Your task to perform on an android device: Clear the shopping cart on newegg.com. Search for bose soundlink mini on newegg.com, select the first entry, add it to the cart, then select checkout. Image 0: 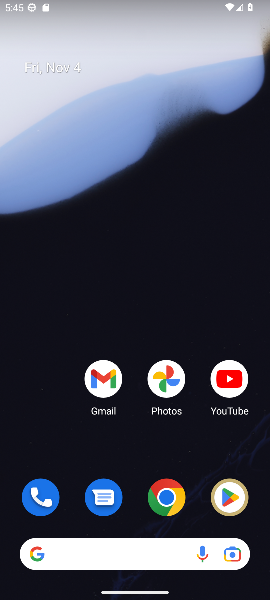
Step 0: click (171, 497)
Your task to perform on an android device: Clear the shopping cart on newegg.com. Search for bose soundlink mini on newegg.com, select the first entry, add it to the cart, then select checkout. Image 1: 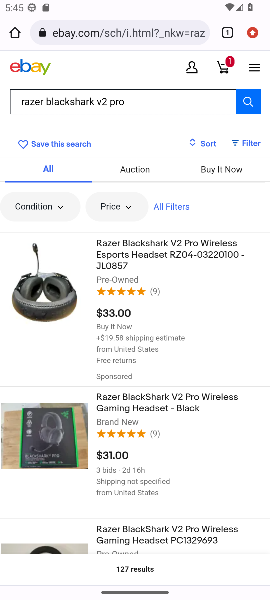
Step 1: click (114, 34)
Your task to perform on an android device: Clear the shopping cart on newegg.com. Search for bose soundlink mini on newegg.com, select the first entry, add it to the cart, then select checkout. Image 2: 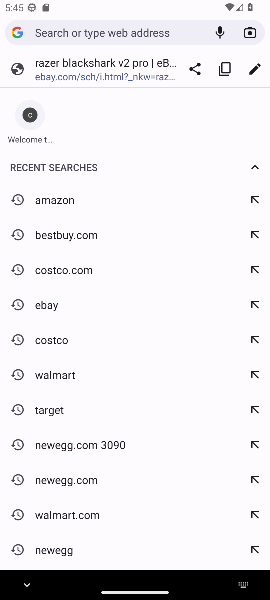
Step 2: click (45, 478)
Your task to perform on an android device: Clear the shopping cart on newegg.com. Search for bose soundlink mini on newegg.com, select the first entry, add it to the cart, then select checkout. Image 3: 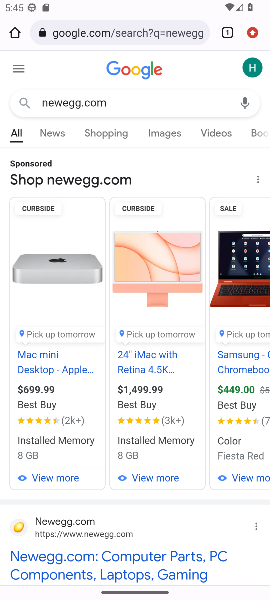
Step 3: click (67, 526)
Your task to perform on an android device: Clear the shopping cart on newegg.com. Search for bose soundlink mini on newegg.com, select the first entry, add it to the cart, then select checkout. Image 4: 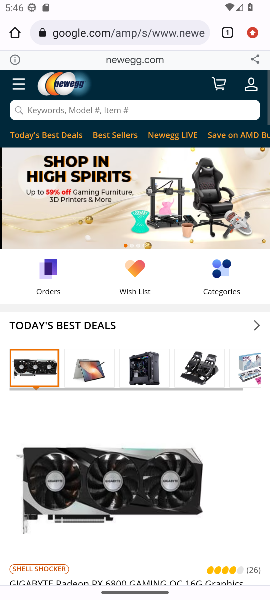
Step 4: click (222, 84)
Your task to perform on an android device: Clear the shopping cart on newegg.com. Search for bose soundlink mini on newegg.com, select the first entry, add it to the cart, then select checkout. Image 5: 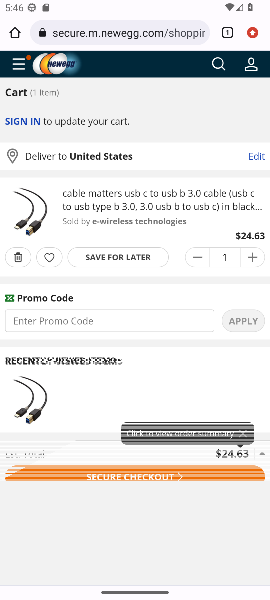
Step 5: click (18, 258)
Your task to perform on an android device: Clear the shopping cart on newegg.com. Search for bose soundlink mini on newegg.com, select the first entry, add it to the cart, then select checkout. Image 6: 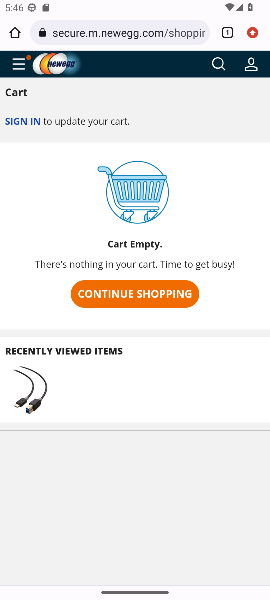
Step 6: click (133, 293)
Your task to perform on an android device: Clear the shopping cart on newegg.com. Search for bose soundlink mini on newegg.com, select the first entry, add it to the cart, then select checkout. Image 7: 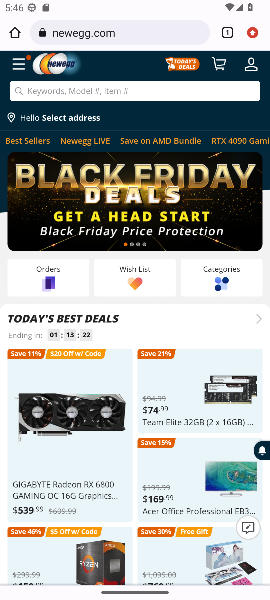
Step 7: click (81, 90)
Your task to perform on an android device: Clear the shopping cart on newegg.com. Search for bose soundlink mini on newegg.com, select the first entry, add it to the cart, then select checkout. Image 8: 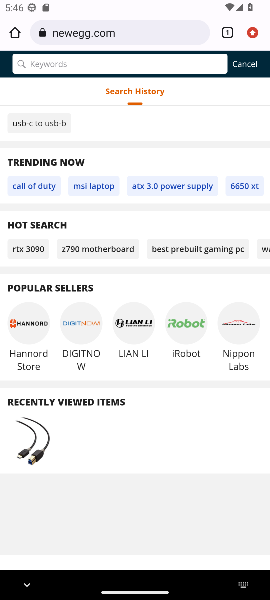
Step 8: type "bose soundlink mini"
Your task to perform on an android device: Clear the shopping cart on newegg.com. Search for bose soundlink mini on newegg.com, select the first entry, add it to the cart, then select checkout. Image 9: 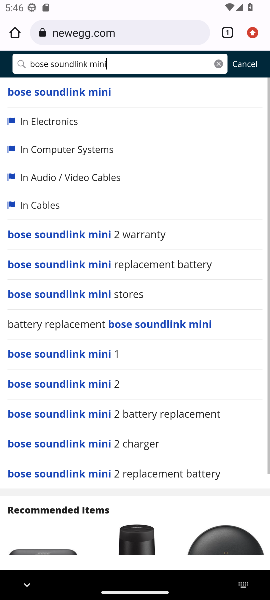
Step 9: click (47, 94)
Your task to perform on an android device: Clear the shopping cart on newegg.com. Search for bose soundlink mini on newegg.com, select the first entry, add it to the cart, then select checkout. Image 10: 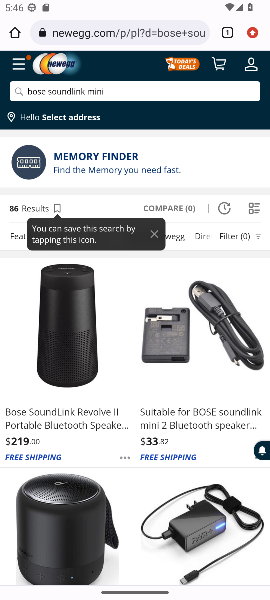
Step 10: drag from (124, 419) to (130, 343)
Your task to perform on an android device: Clear the shopping cart on newegg.com. Search for bose soundlink mini on newegg.com, select the first entry, add it to the cart, then select checkout. Image 11: 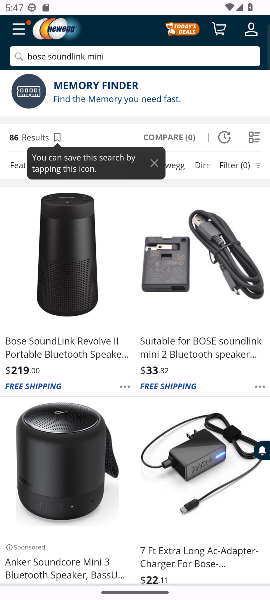
Step 11: click (60, 298)
Your task to perform on an android device: Clear the shopping cart on newegg.com. Search for bose soundlink mini on newegg.com, select the first entry, add it to the cart, then select checkout. Image 12: 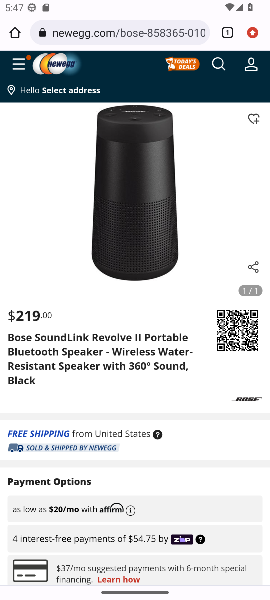
Step 12: task complete